Your task to perform on an android device: Open Google Maps and go to "Timeline" Image 0: 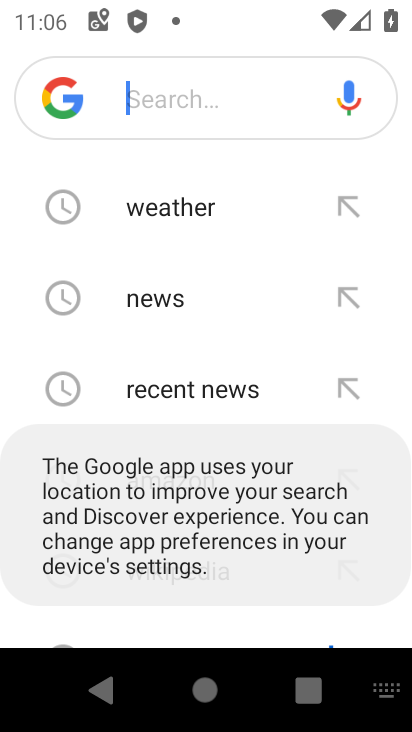
Step 0: press home button
Your task to perform on an android device: Open Google Maps and go to "Timeline" Image 1: 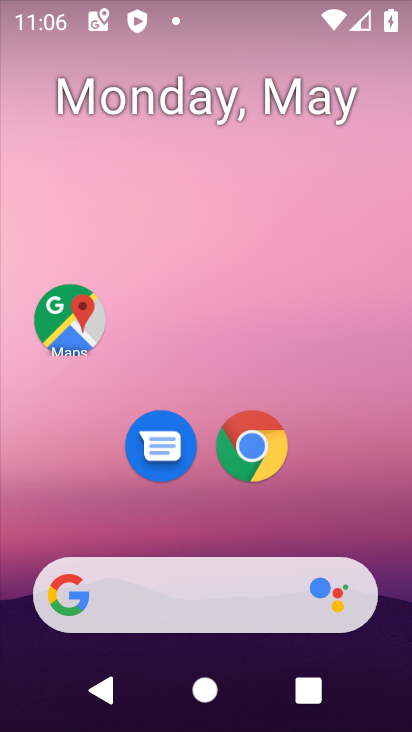
Step 1: drag from (351, 506) to (272, 0)
Your task to perform on an android device: Open Google Maps and go to "Timeline" Image 2: 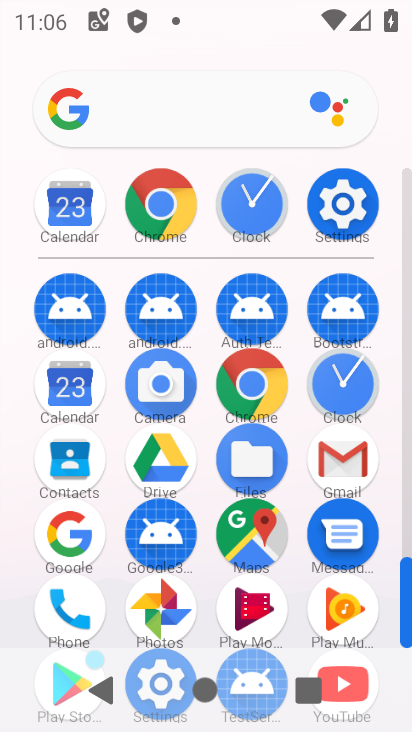
Step 2: click (253, 530)
Your task to perform on an android device: Open Google Maps and go to "Timeline" Image 3: 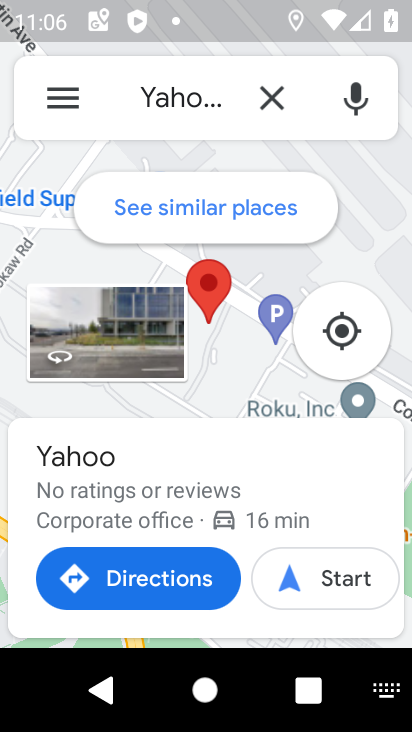
Step 3: click (74, 135)
Your task to perform on an android device: Open Google Maps and go to "Timeline" Image 4: 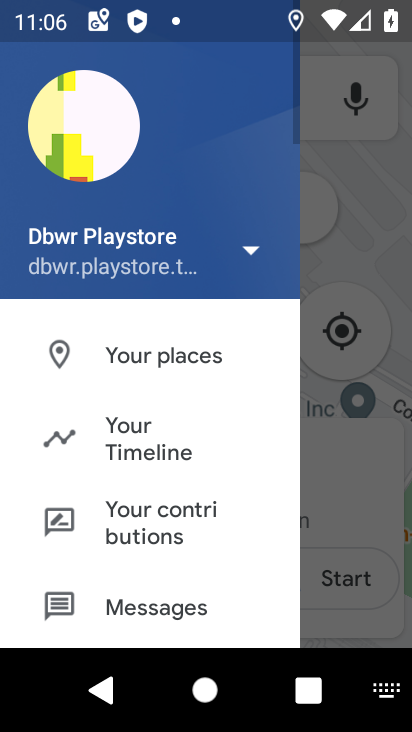
Step 4: click (172, 453)
Your task to perform on an android device: Open Google Maps and go to "Timeline" Image 5: 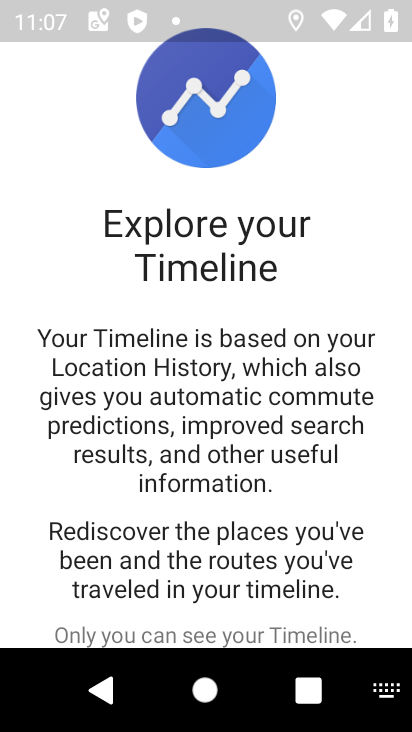
Step 5: task complete